Your task to perform on an android device: toggle improve location accuracy Image 0: 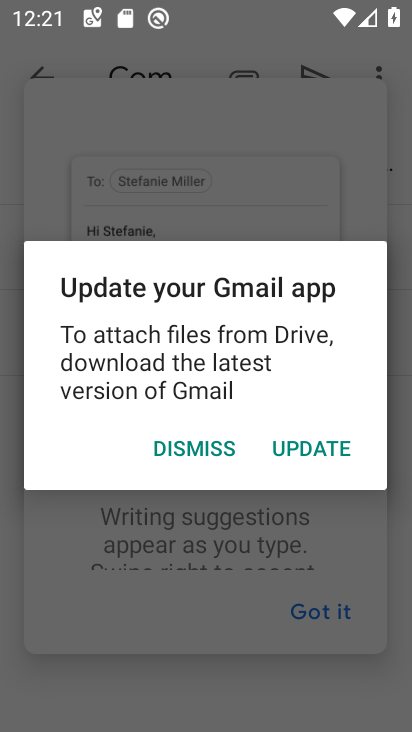
Step 0: press home button
Your task to perform on an android device: toggle improve location accuracy Image 1: 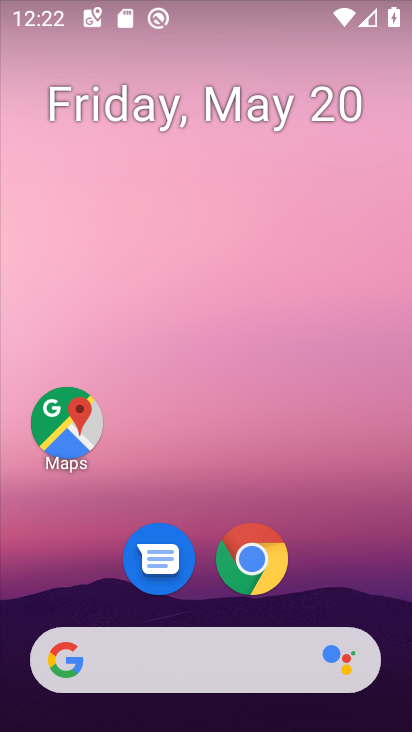
Step 1: drag from (350, 581) to (264, 214)
Your task to perform on an android device: toggle improve location accuracy Image 2: 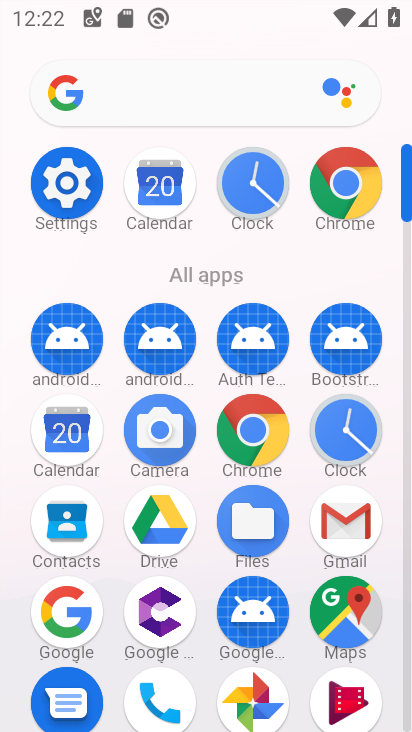
Step 2: click (74, 178)
Your task to perform on an android device: toggle improve location accuracy Image 3: 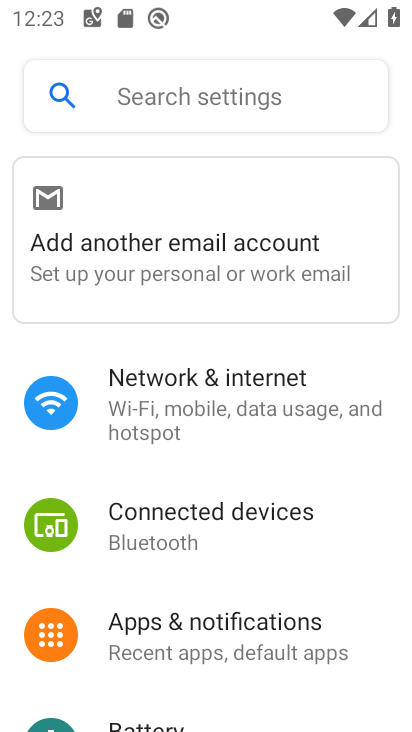
Step 3: drag from (274, 607) to (204, 271)
Your task to perform on an android device: toggle improve location accuracy Image 4: 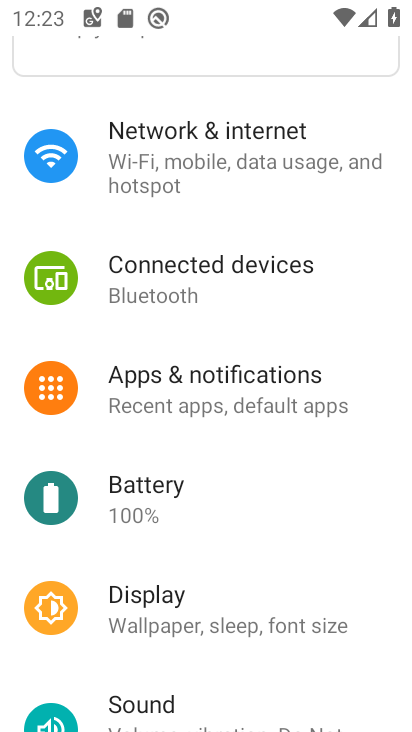
Step 4: drag from (311, 575) to (242, 244)
Your task to perform on an android device: toggle improve location accuracy Image 5: 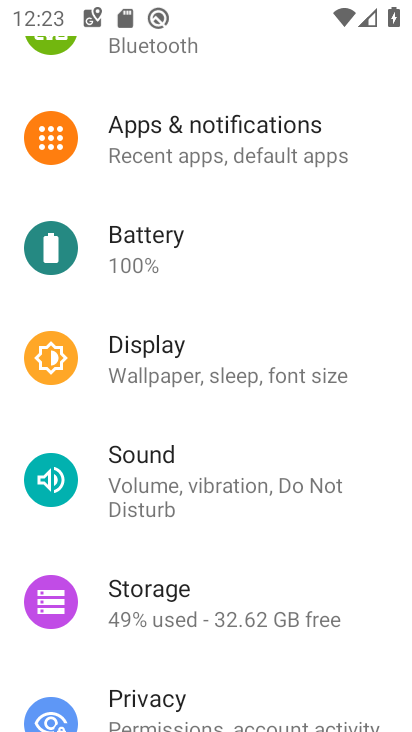
Step 5: drag from (310, 518) to (215, 263)
Your task to perform on an android device: toggle improve location accuracy Image 6: 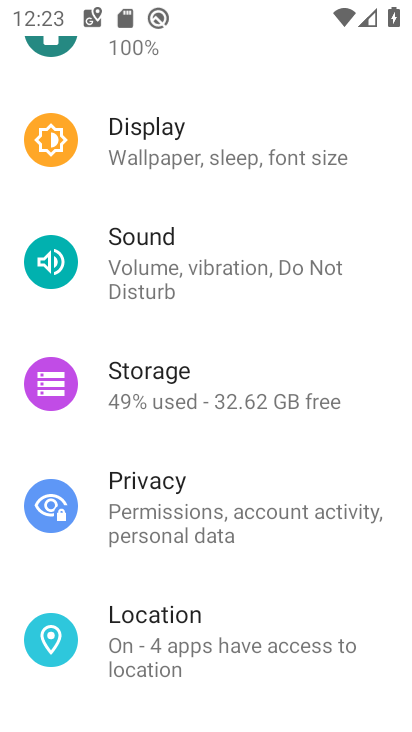
Step 6: click (296, 618)
Your task to perform on an android device: toggle improve location accuracy Image 7: 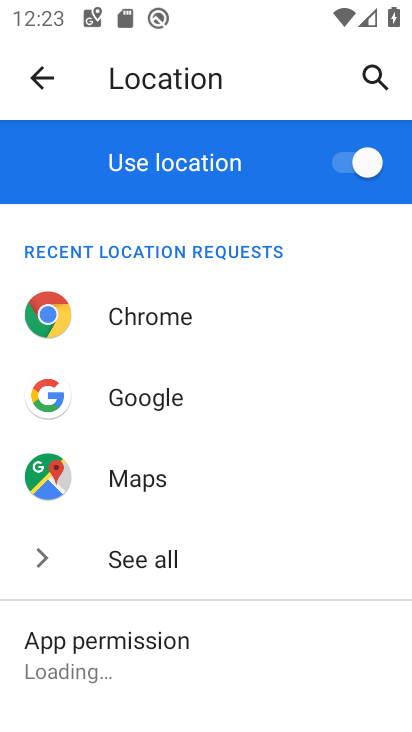
Step 7: drag from (288, 644) to (185, 187)
Your task to perform on an android device: toggle improve location accuracy Image 8: 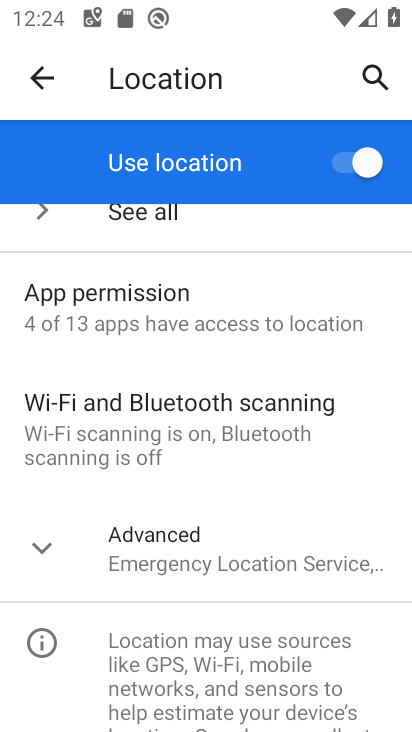
Step 8: drag from (231, 619) to (190, 208)
Your task to perform on an android device: toggle improve location accuracy Image 9: 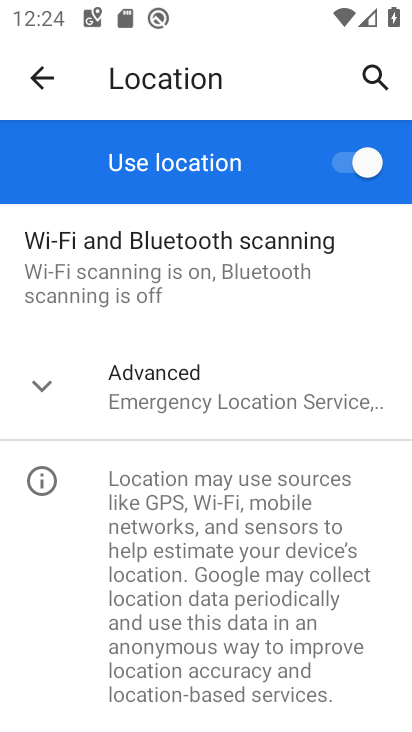
Step 9: drag from (300, 688) to (289, 378)
Your task to perform on an android device: toggle improve location accuracy Image 10: 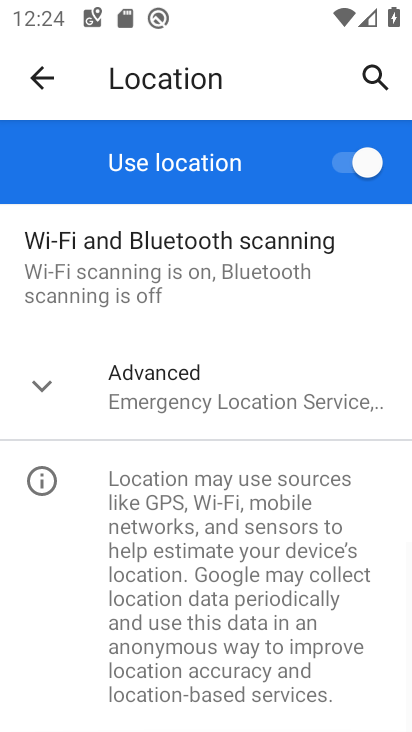
Step 10: click (289, 378)
Your task to perform on an android device: toggle improve location accuracy Image 11: 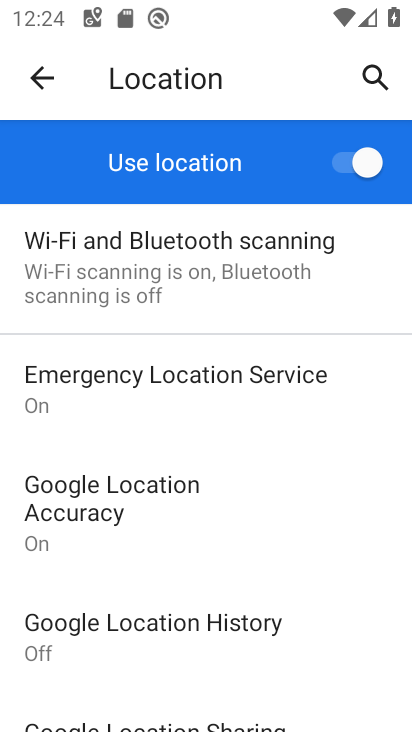
Step 11: click (259, 521)
Your task to perform on an android device: toggle improve location accuracy Image 12: 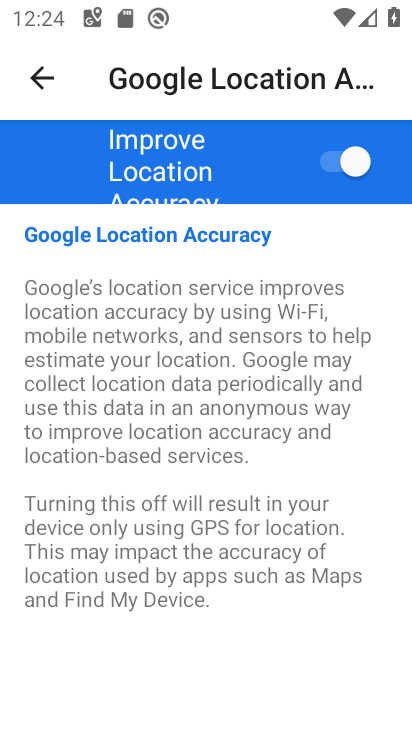
Step 12: click (333, 150)
Your task to perform on an android device: toggle improve location accuracy Image 13: 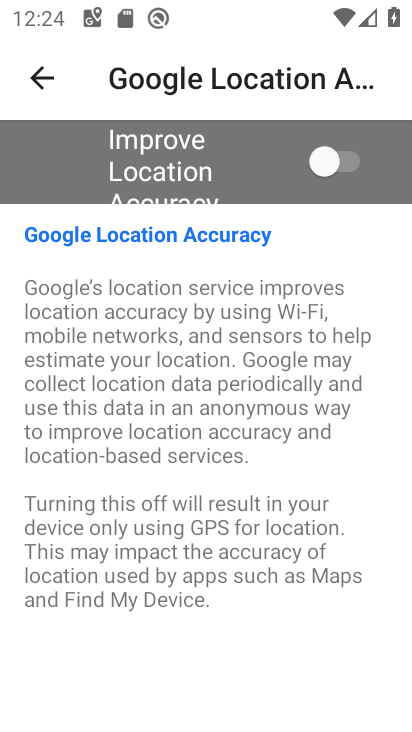
Step 13: task complete